Your task to perform on an android device: clear all cookies in the chrome app Image 0: 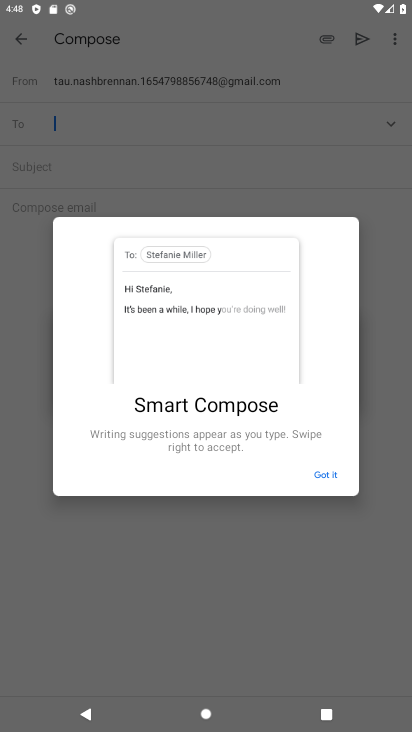
Step 0: press home button
Your task to perform on an android device: clear all cookies in the chrome app Image 1: 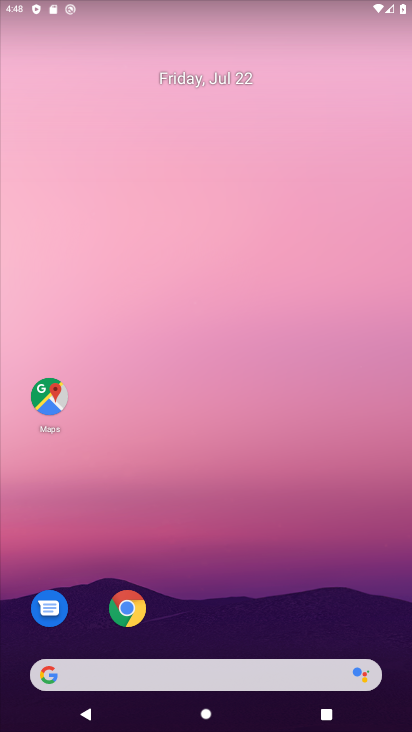
Step 1: click (140, 590)
Your task to perform on an android device: clear all cookies in the chrome app Image 2: 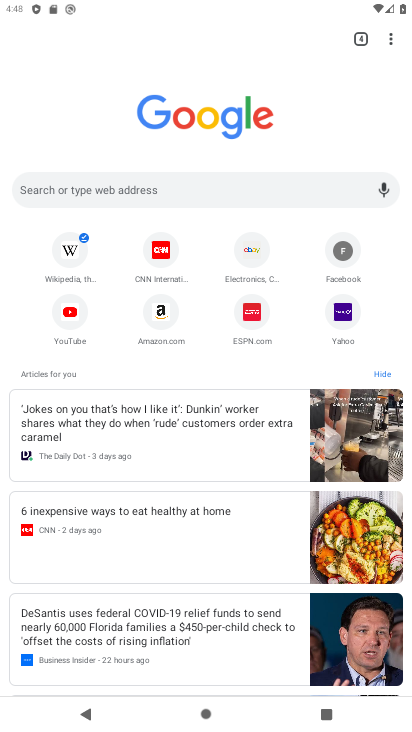
Step 2: click (403, 43)
Your task to perform on an android device: clear all cookies in the chrome app Image 3: 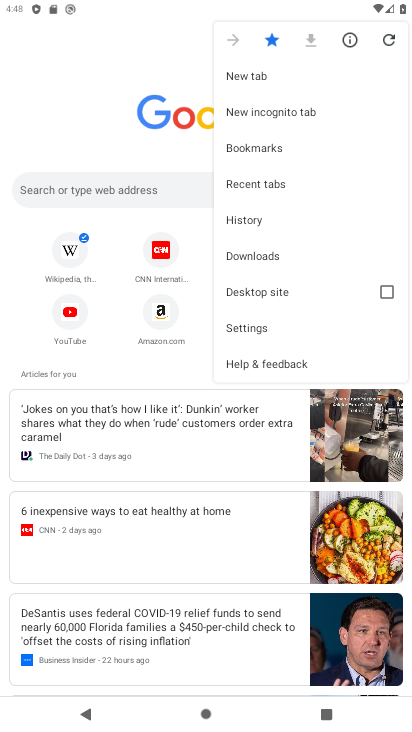
Step 3: click (230, 220)
Your task to perform on an android device: clear all cookies in the chrome app Image 4: 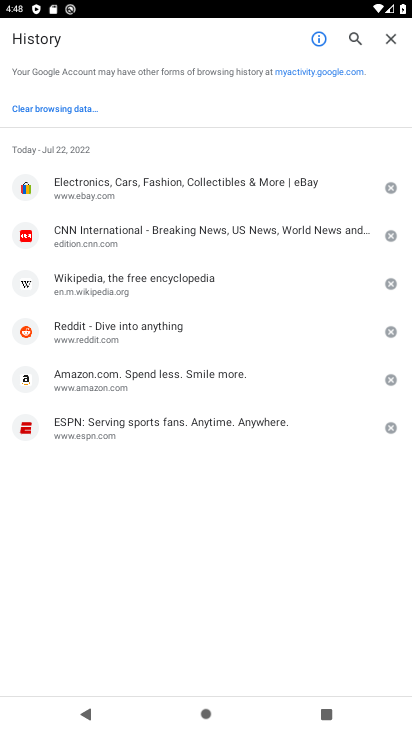
Step 4: click (57, 115)
Your task to perform on an android device: clear all cookies in the chrome app Image 5: 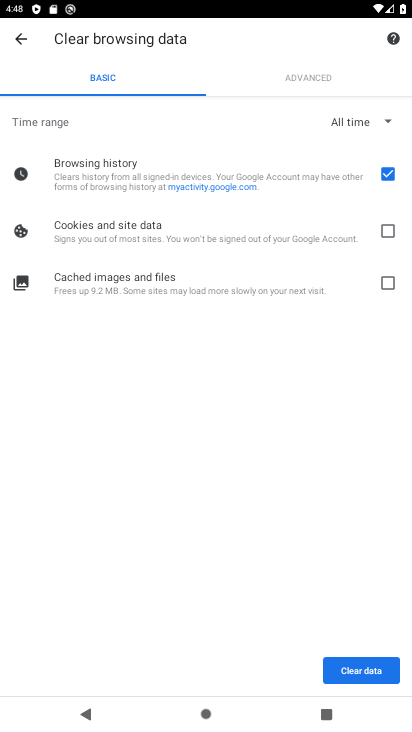
Step 5: click (385, 226)
Your task to perform on an android device: clear all cookies in the chrome app Image 6: 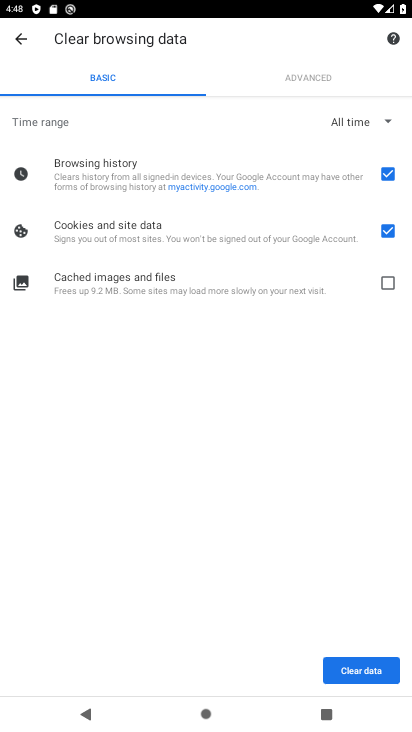
Step 6: click (384, 174)
Your task to perform on an android device: clear all cookies in the chrome app Image 7: 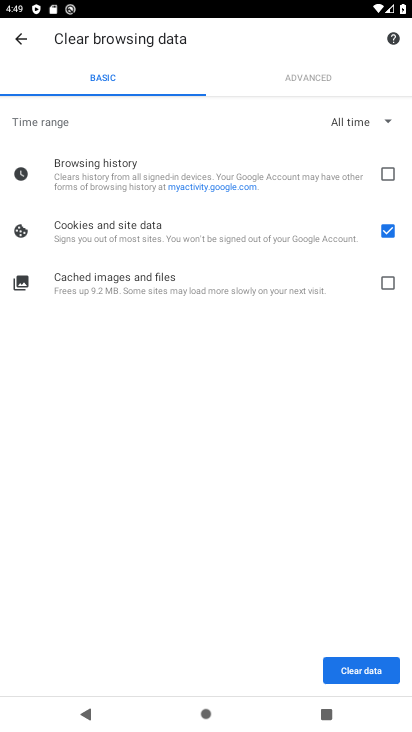
Step 7: click (388, 670)
Your task to perform on an android device: clear all cookies in the chrome app Image 8: 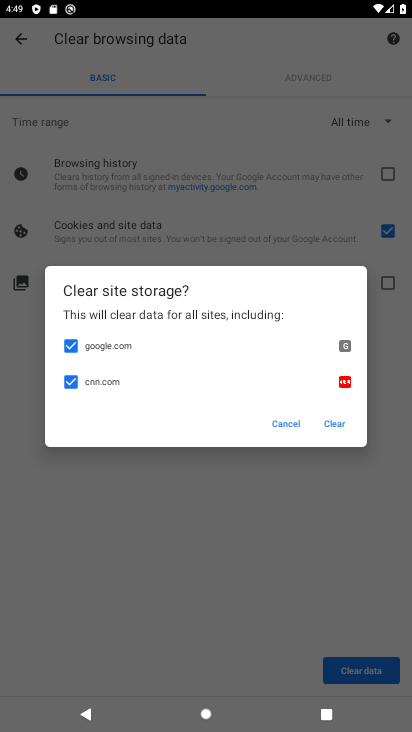
Step 8: click (336, 425)
Your task to perform on an android device: clear all cookies in the chrome app Image 9: 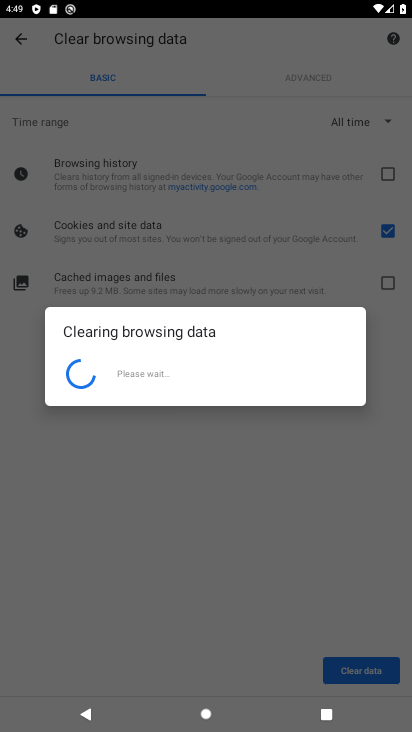
Step 9: task complete